Your task to perform on an android device: Turn on the flashlight Image 0: 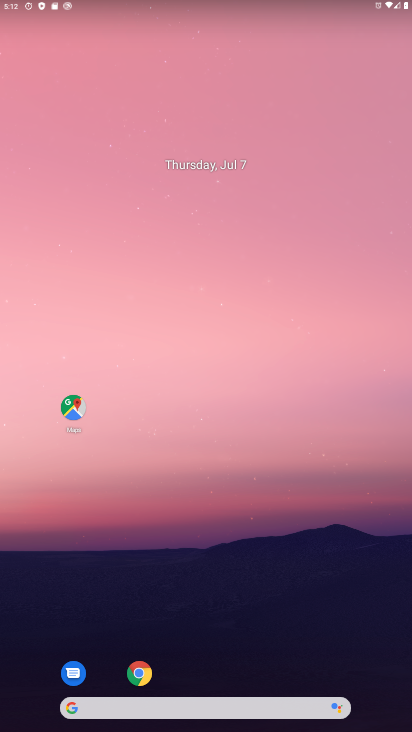
Step 0: drag from (267, 702) to (352, 63)
Your task to perform on an android device: Turn on the flashlight Image 1: 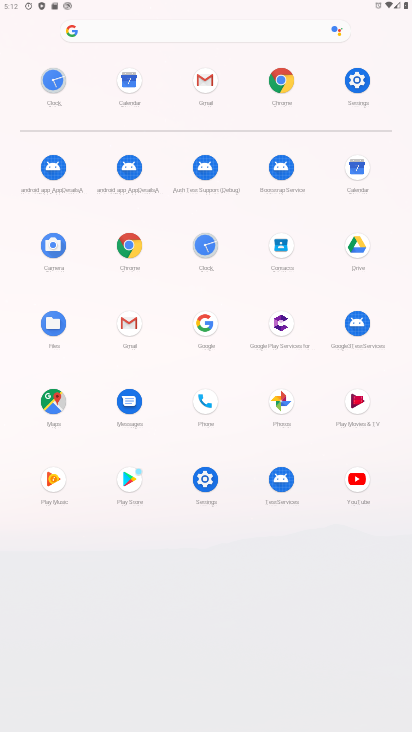
Step 1: click (234, 634)
Your task to perform on an android device: Turn on the flashlight Image 2: 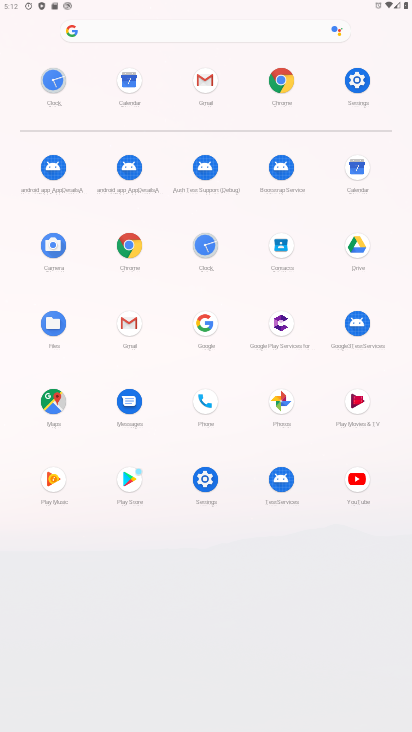
Step 2: task complete